Your task to perform on an android device: check data usage Image 0: 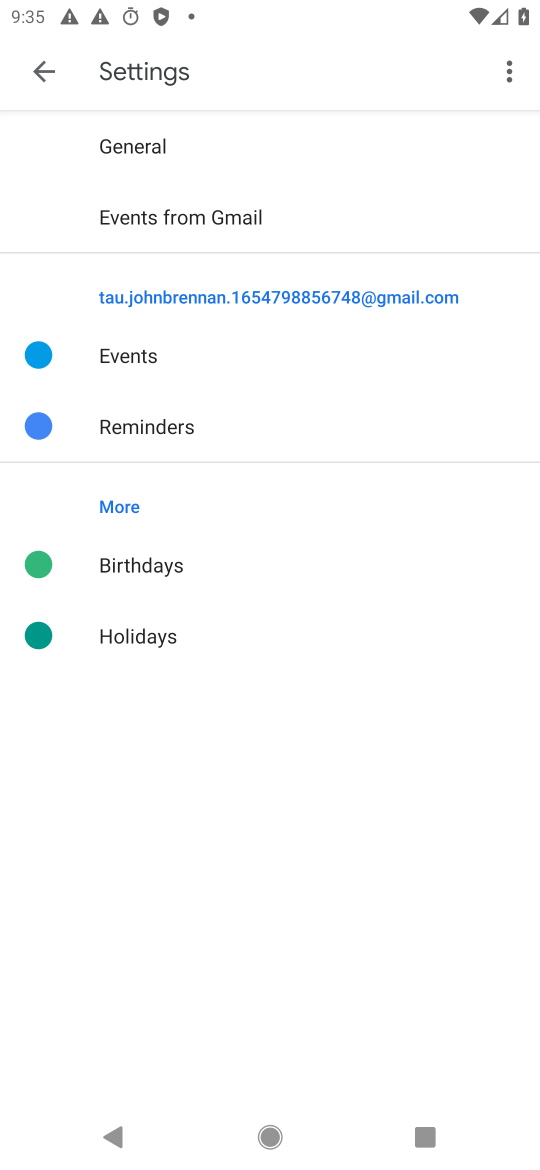
Step 0: press home button
Your task to perform on an android device: check data usage Image 1: 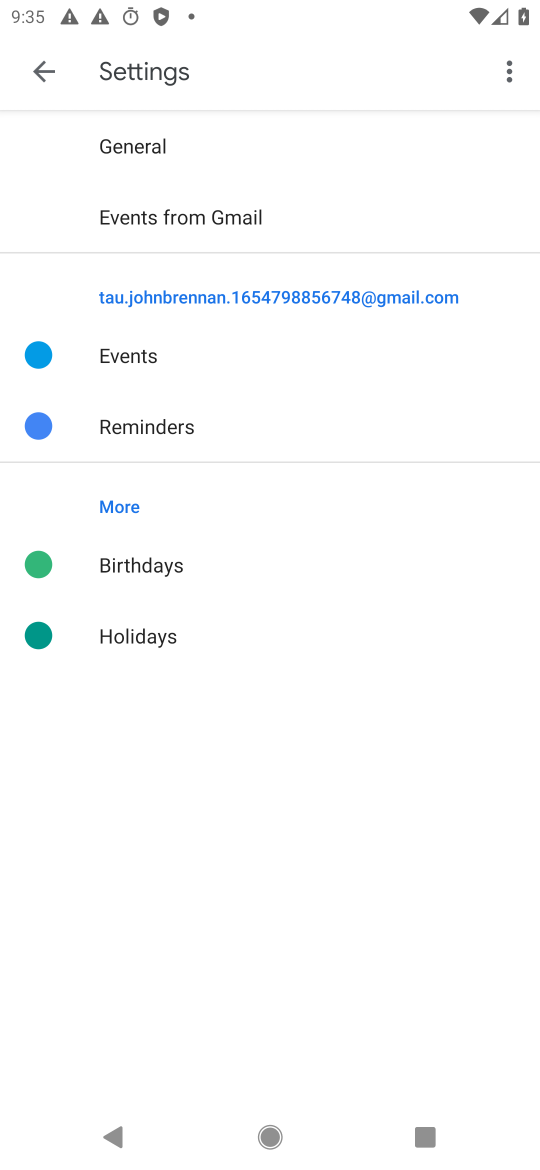
Step 1: drag from (449, 811) to (517, 475)
Your task to perform on an android device: check data usage Image 2: 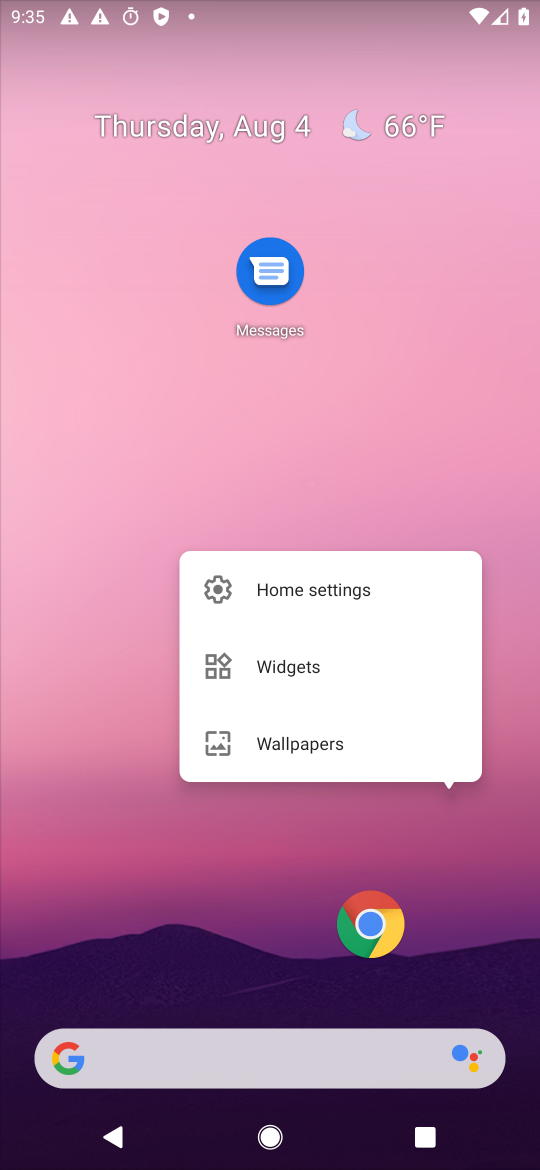
Step 2: click (249, 933)
Your task to perform on an android device: check data usage Image 3: 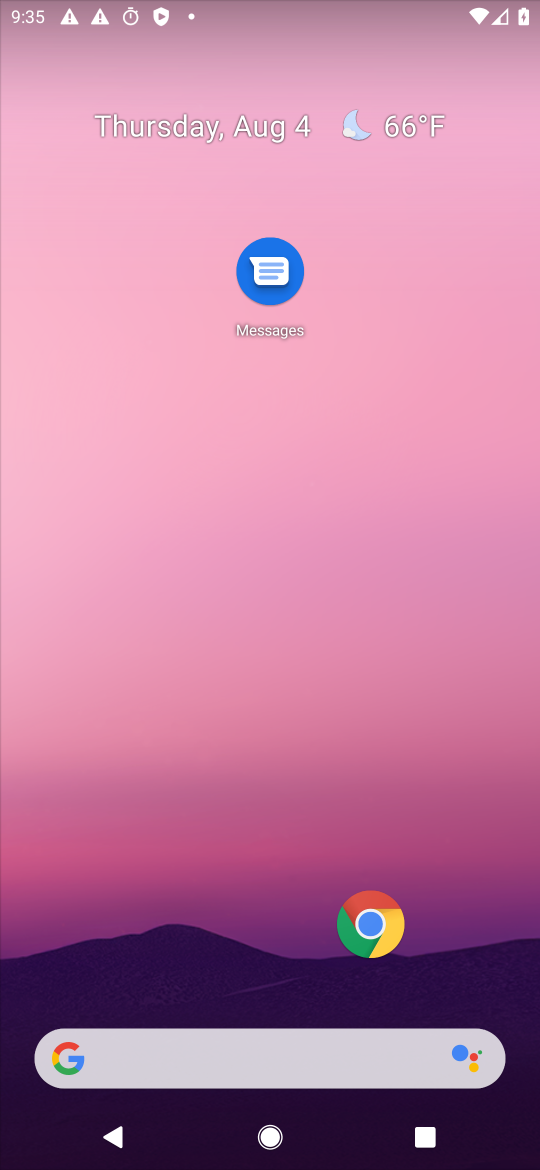
Step 3: drag from (255, 959) to (389, 27)
Your task to perform on an android device: check data usage Image 4: 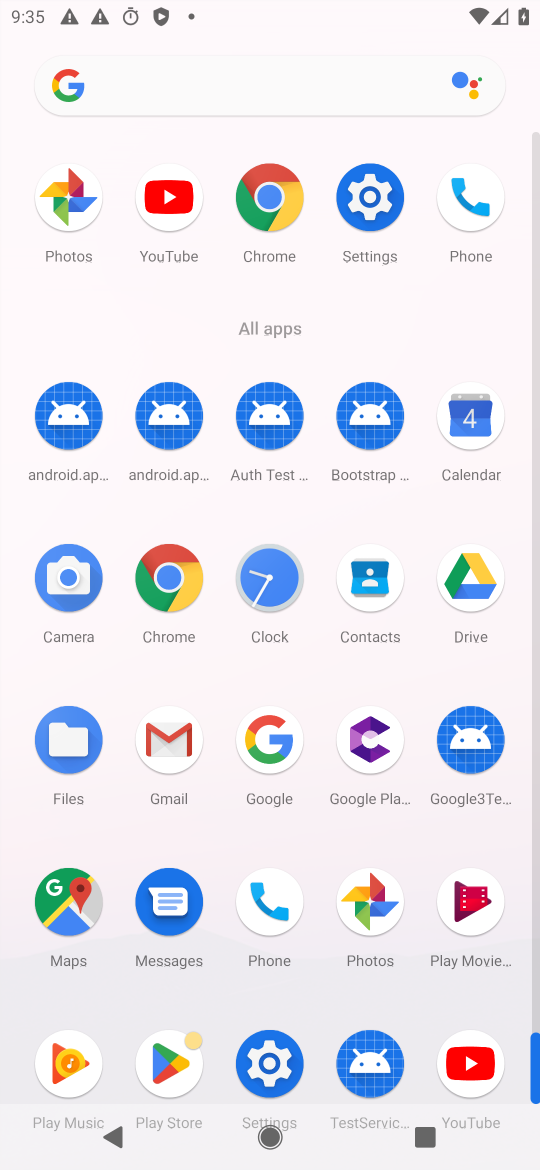
Step 4: click (367, 186)
Your task to perform on an android device: check data usage Image 5: 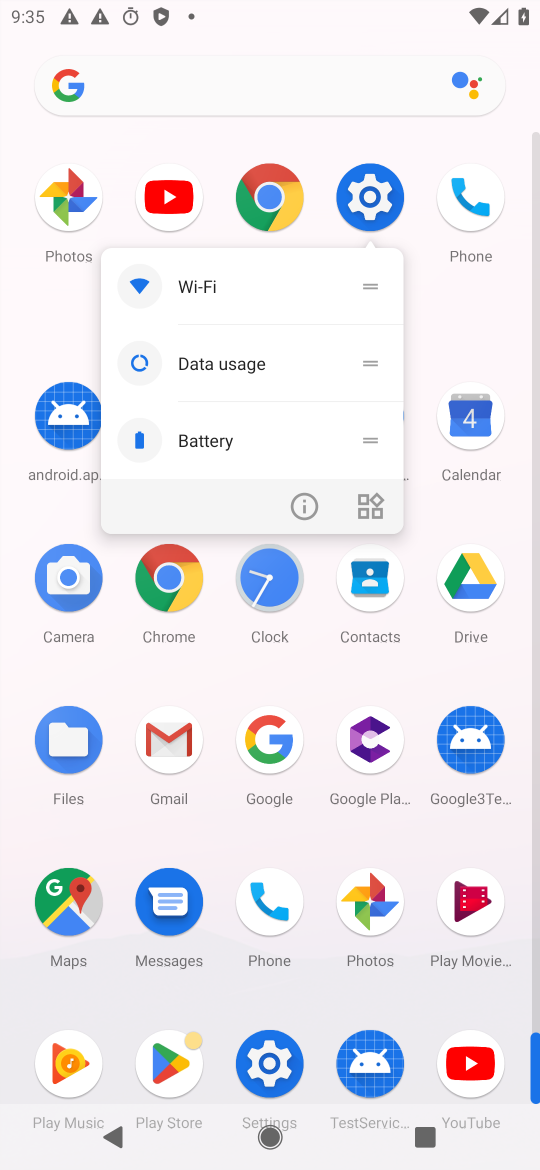
Step 5: click (308, 498)
Your task to perform on an android device: check data usage Image 6: 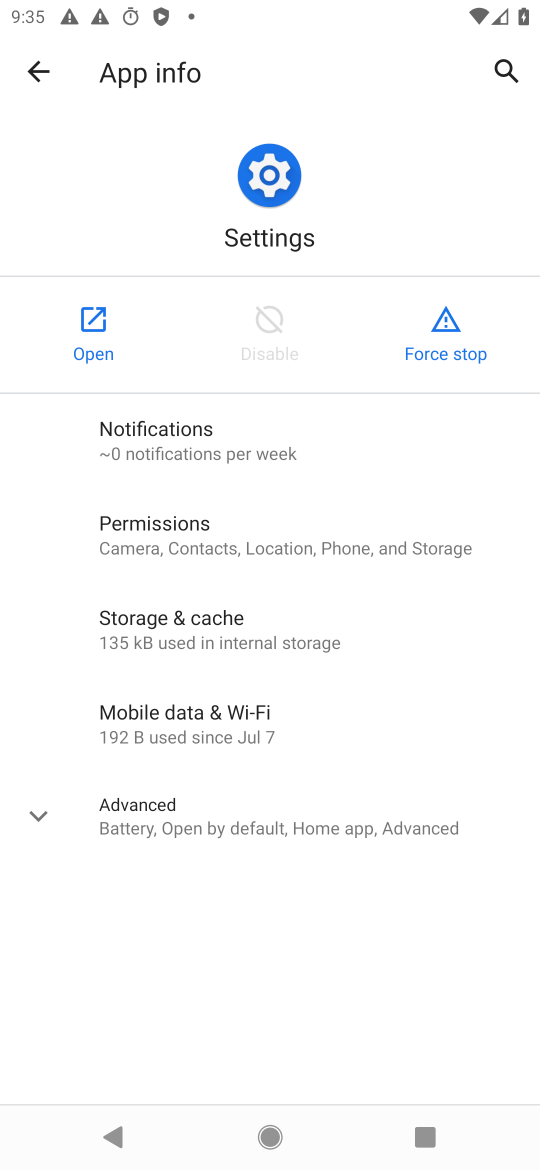
Step 6: click (96, 332)
Your task to perform on an android device: check data usage Image 7: 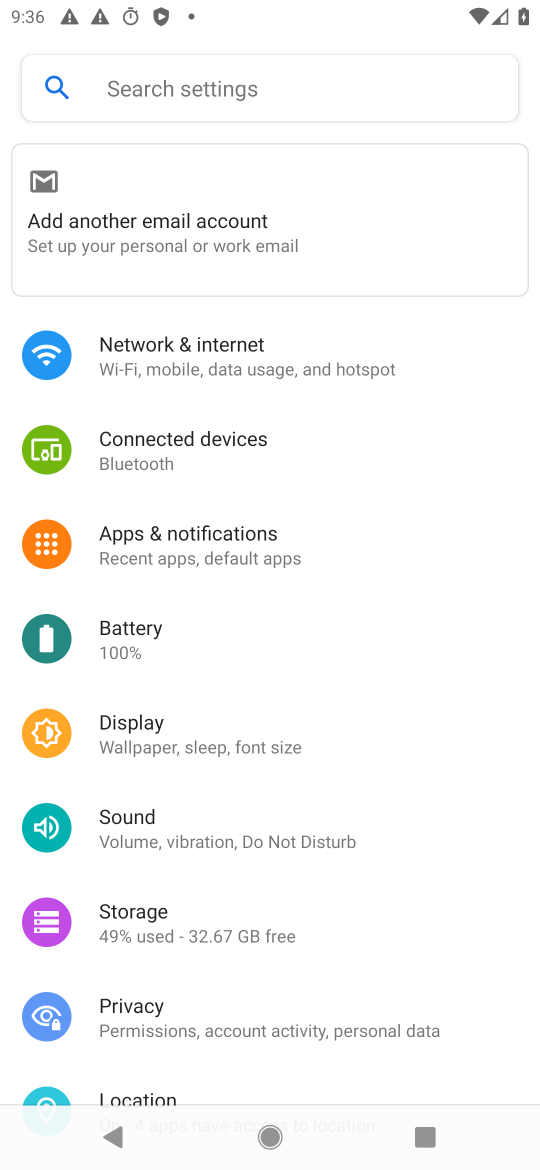
Step 7: drag from (256, 947) to (242, 526)
Your task to perform on an android device: check data usage Image 8: 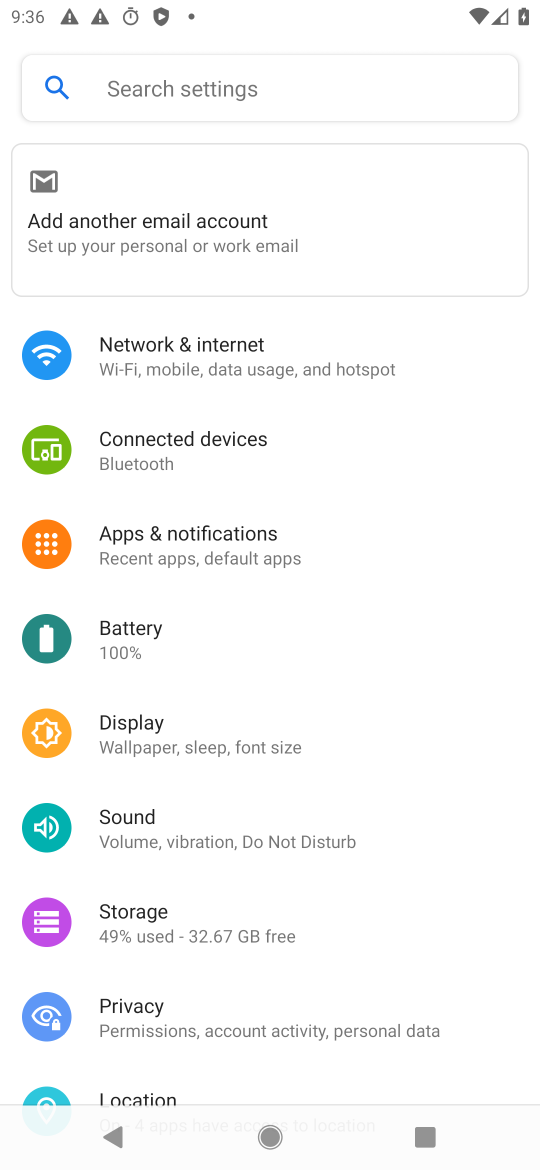
Step 8: click (230, 367)
Your task to perform on an android device: check data usage Image 9: 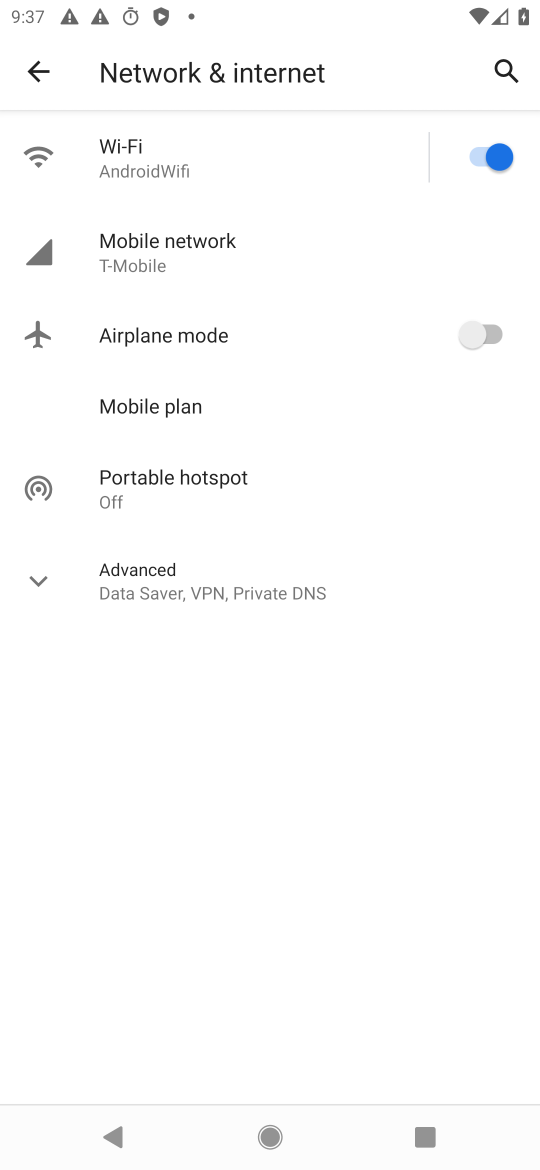
Step 9: click (252, 261)
Your task to perform on an android device: check data usage Image 10: 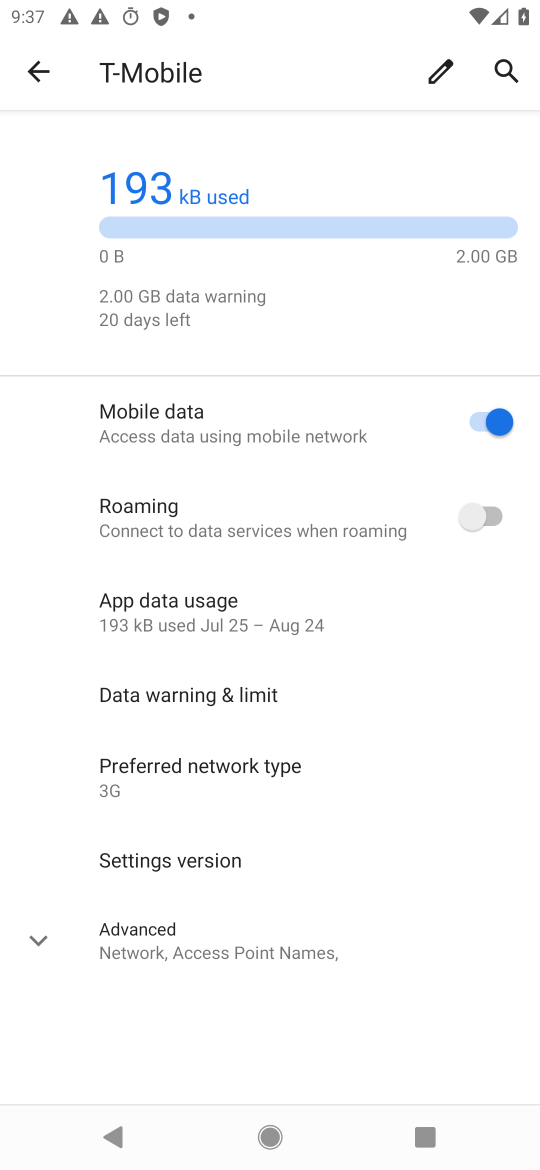
Step 10: task complete